Your task to perform on an android device: turn on the 24-hour format for clock Image 0: 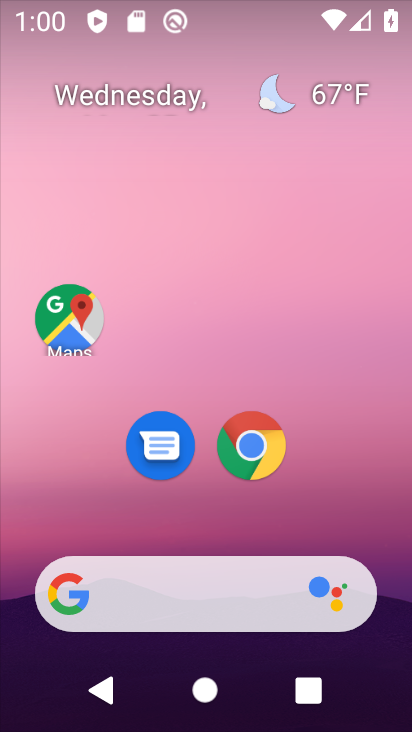
Step 0: drag from (395, 563) to (308, 183)
Your task to perform on an android device: turn on the 24-hour format for clock Image 1: 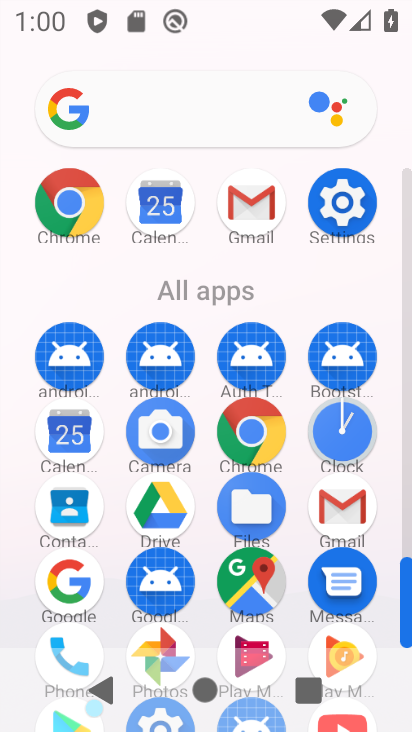
Step 1: click (355, 423)
Your task to perform on an android device: turn on the 24-hour format for clock Image 2: 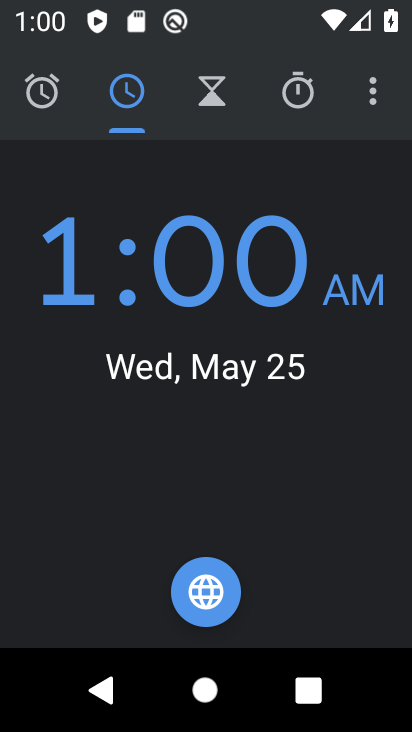
Step 2: click (372, 111)
Your task to perform on an android device: turn on the 24-hour format for clock Image 3: 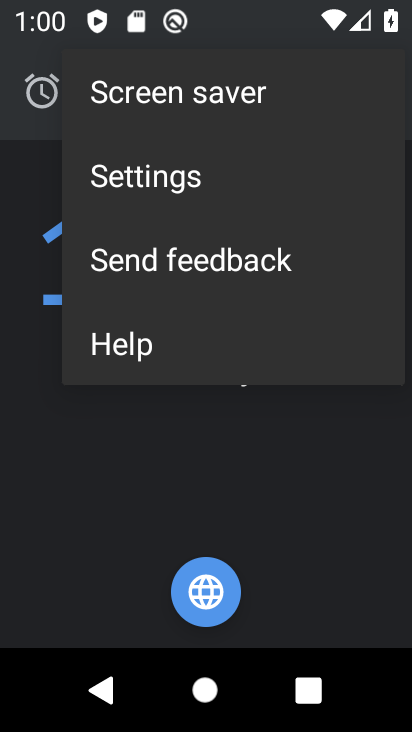
Step 3: click (254, 191)
Your task to perform on an android device: turn on the 24-hour format for clock Image 4: 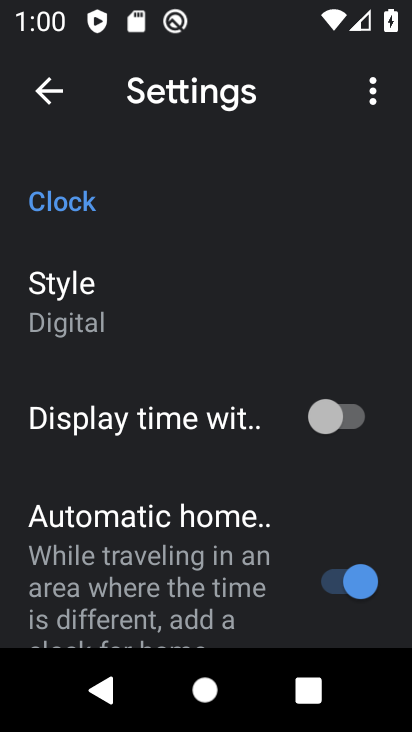
Step 4: drag from (239, 532) to (222, 294)
Your task to perform on an android device: turn on the 24-hour format for clock Image 5: 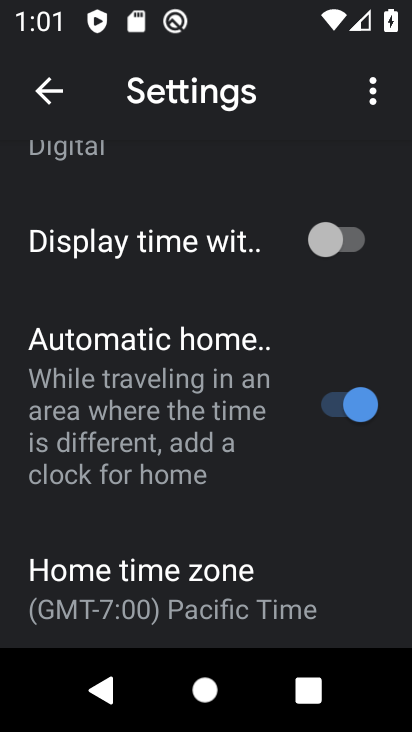
Step 5: drag from (242, 514) to (220, 173)
Your task to perform on an android device: turn on the 24-hour format for clock Image 6: 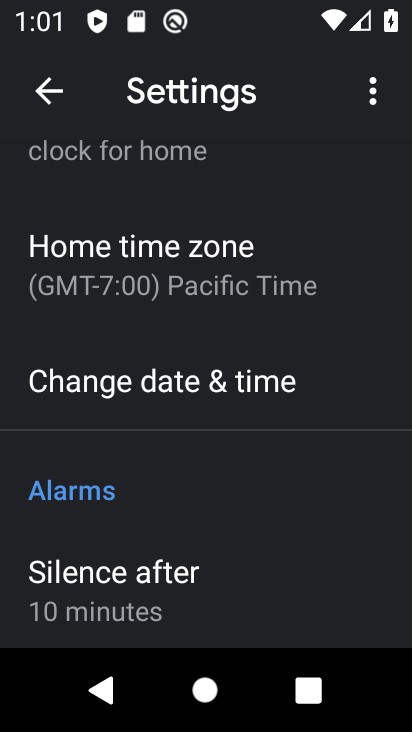
Step 6: click (236, 379)
Your task to perform on an android device: turn on the 24-hour format for clock Image 7: 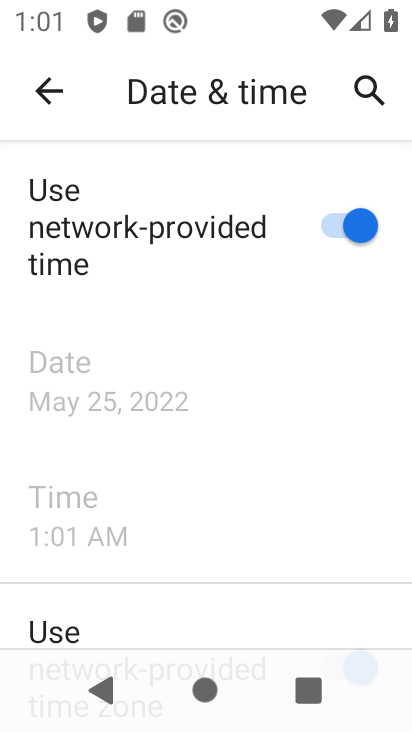
Step 7: drag from (211, 612) to (140, 316)
Your task to perform on an android device: turn on the 24-hour format for clock Image 8: 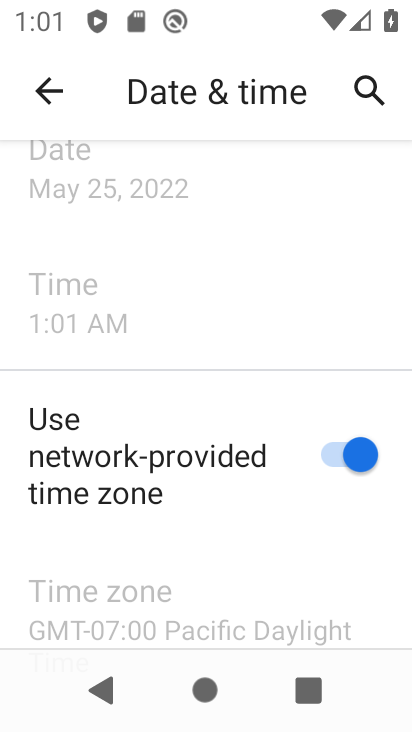
Step 8: drag from (204, 534) to (169, 244)
Your task to perform on an android device: turn on the 24-hour format for clock Image 9: 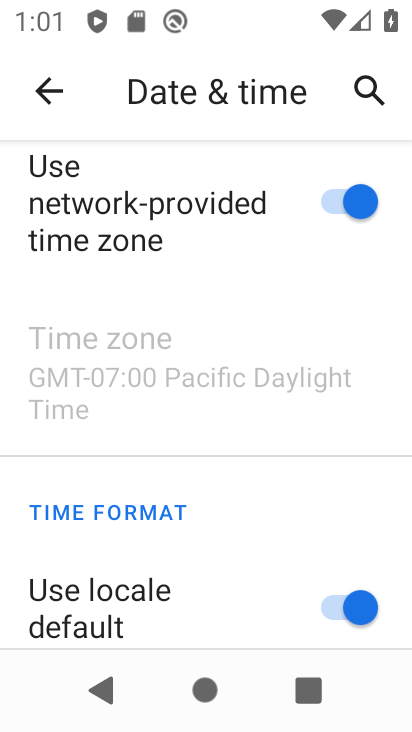
Step 9: drag from (204, 542) to (152, 181)
Your task to perform on an android device: turn on the 24-hour format for clock Image 10: 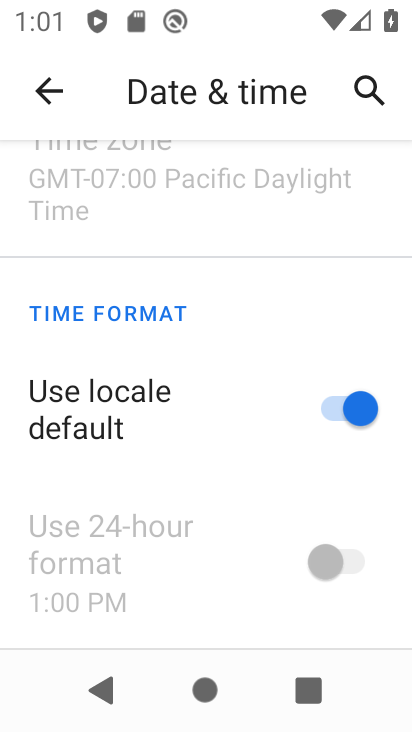
Step 10: click (347, 415)
Your task to perform on an android device: turn on the 24-hour format for clock Image 11: 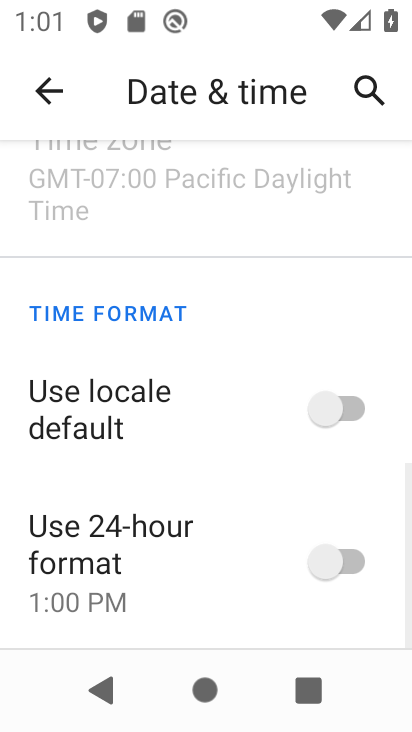
Step 11: click (353, 574)
Your task to perform on an android device: turn on the 24-hour format for clock Image 12: 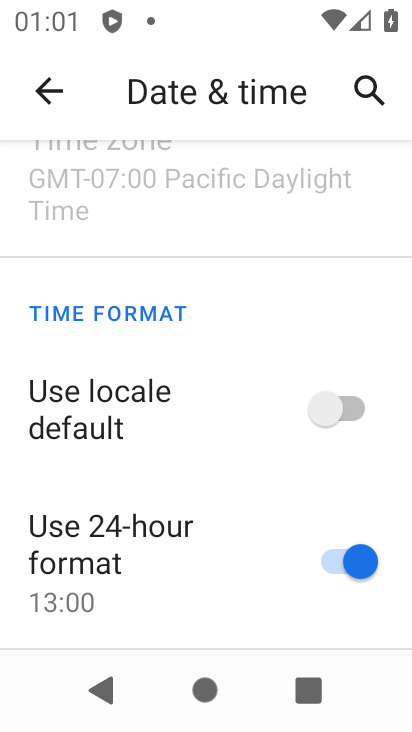
Step 12: task complete